Your task to perform on an android device: Look up the best rated coffee table on Ikea Image 0: 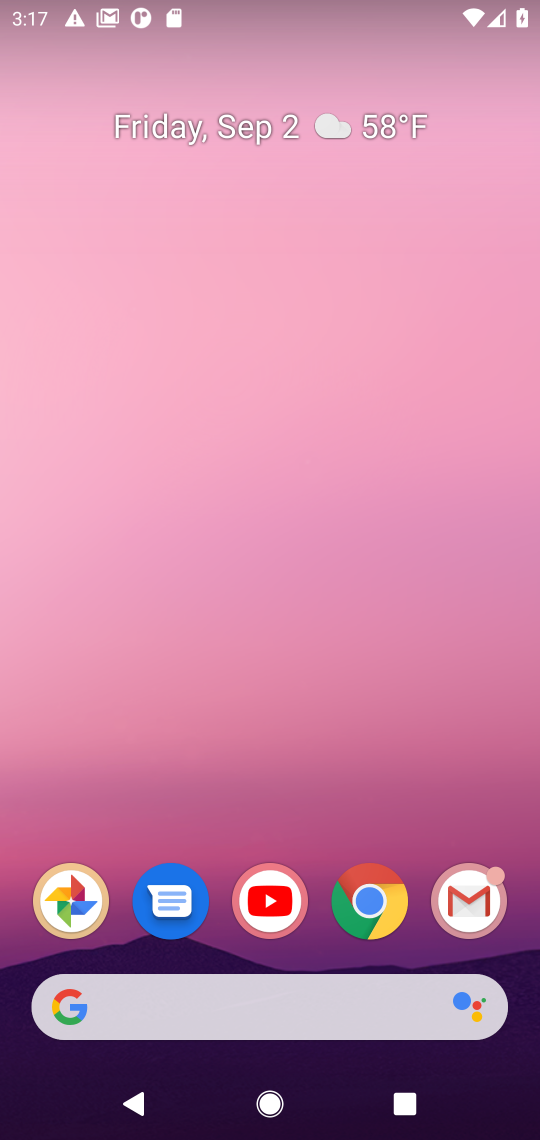
Step 0: click (536, 745)
Your task to perform on an android device: Look up the best rated coffee table on Ikea Image 1: 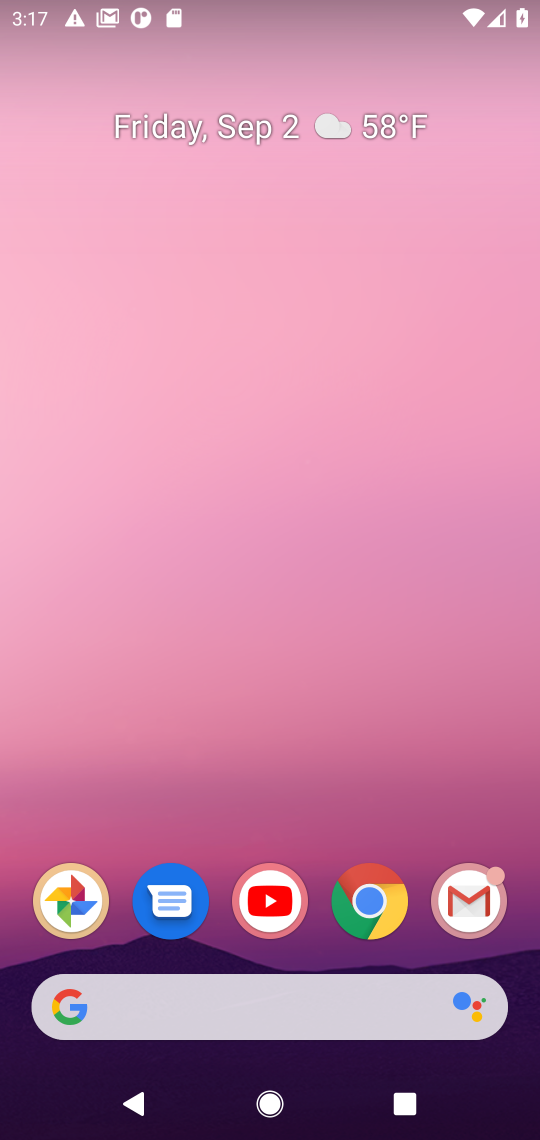
Step 1: drag from (263, 527) to (300, 89)
Your task to perform on an android device: Look up the best rated coffee table on Ikea Image 2: 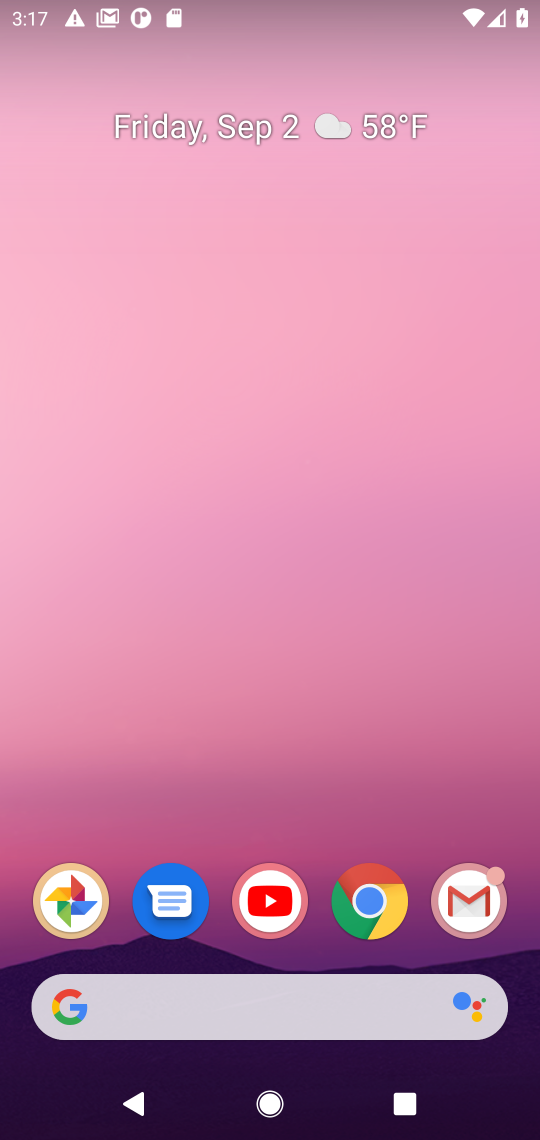
Step 2: drag from (275, 756) to (398, 0)
Your task to perform on an android device: Look up the best rated coffee table on Ikea Image 3: 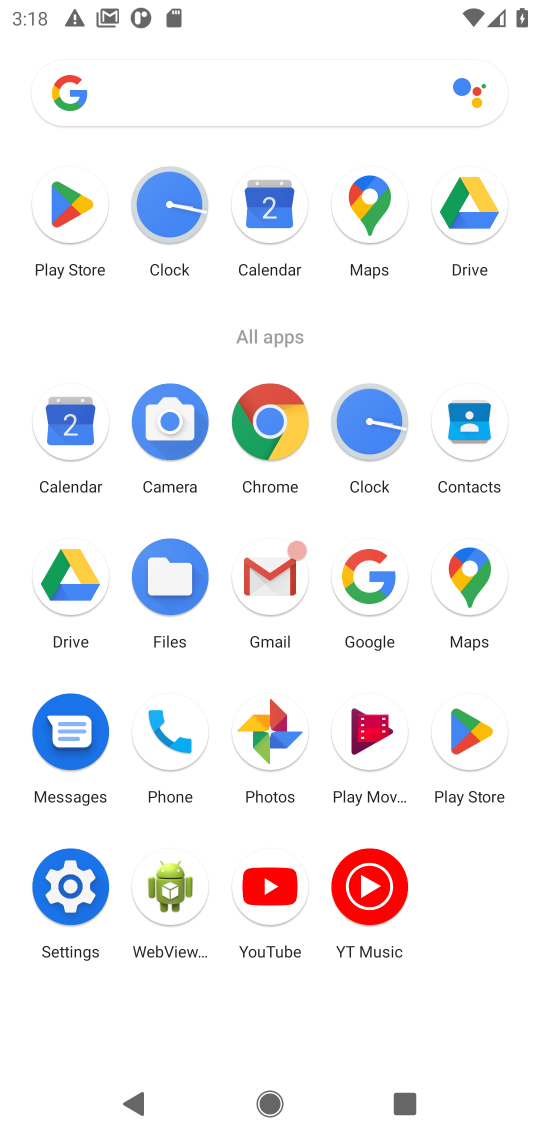
Step 3: click (275, 423)
Your task to perform on an android device: Look up the best rated coffee table on Ikea Image 4: 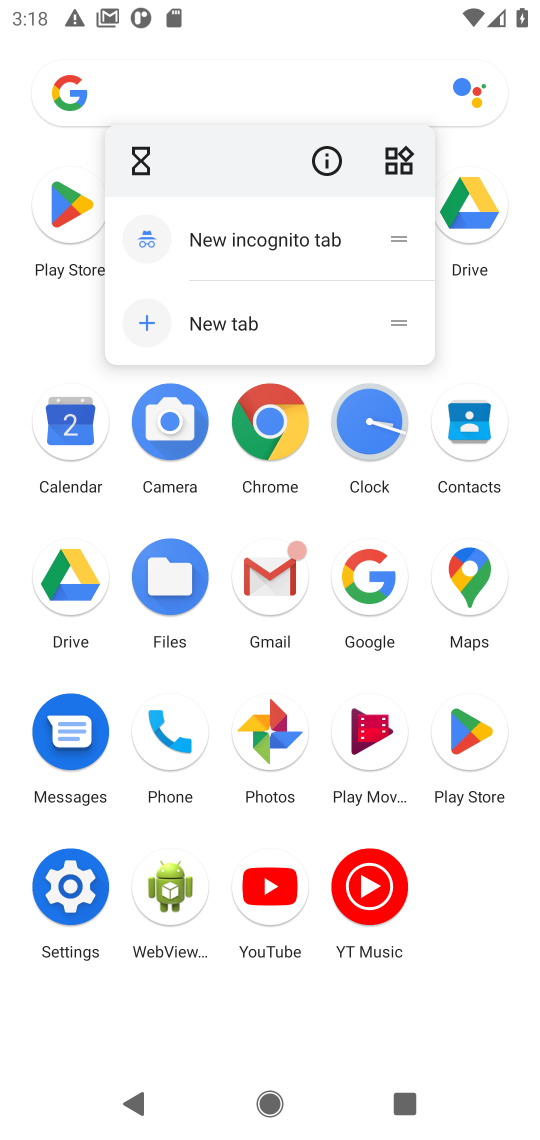
Step 4: click (276, 435)
Your task to perform on an android device: Look up the best rated coffee table on Ikea Image 5: 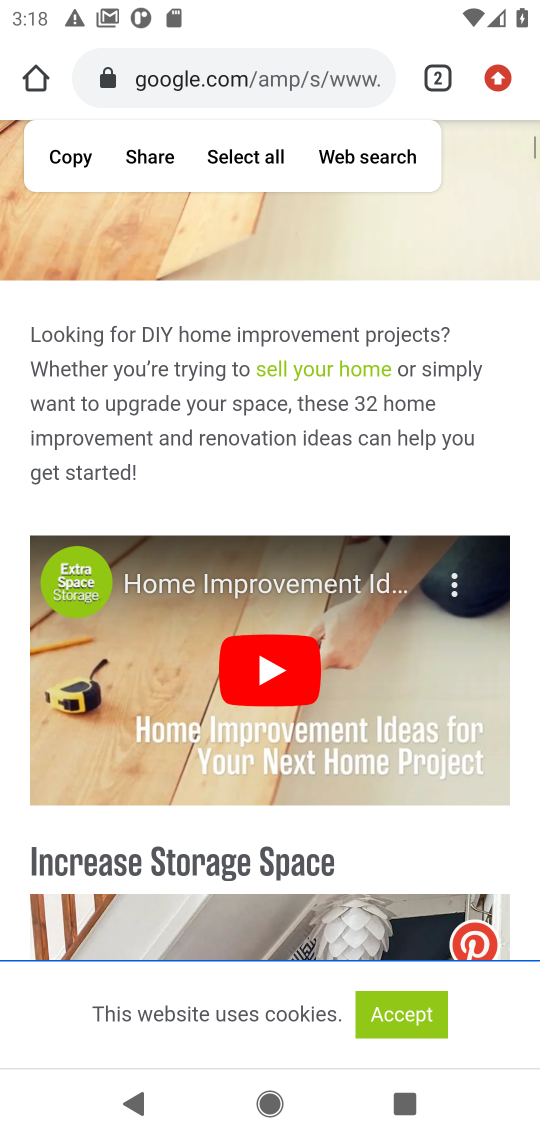
Step 5: click (318, 85)
Your task to perform on an android device: Look up the best rated coffee table on Ikea Image 6: 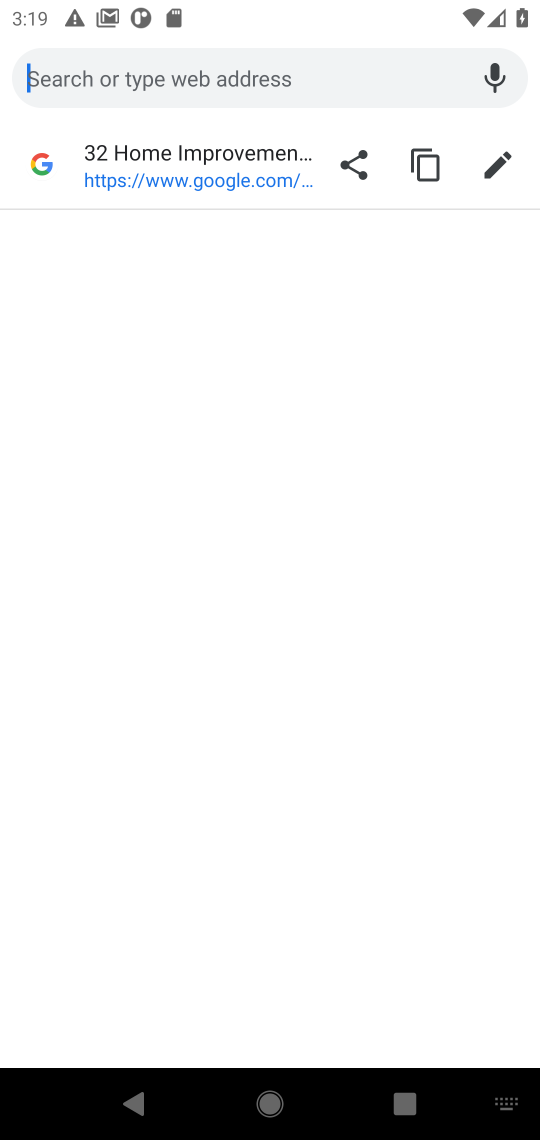
Step 6: type "best rated coffee table on Ikea"
Your task to perform on an android device: Look up the best rated coffee table on Ikea Image 7: 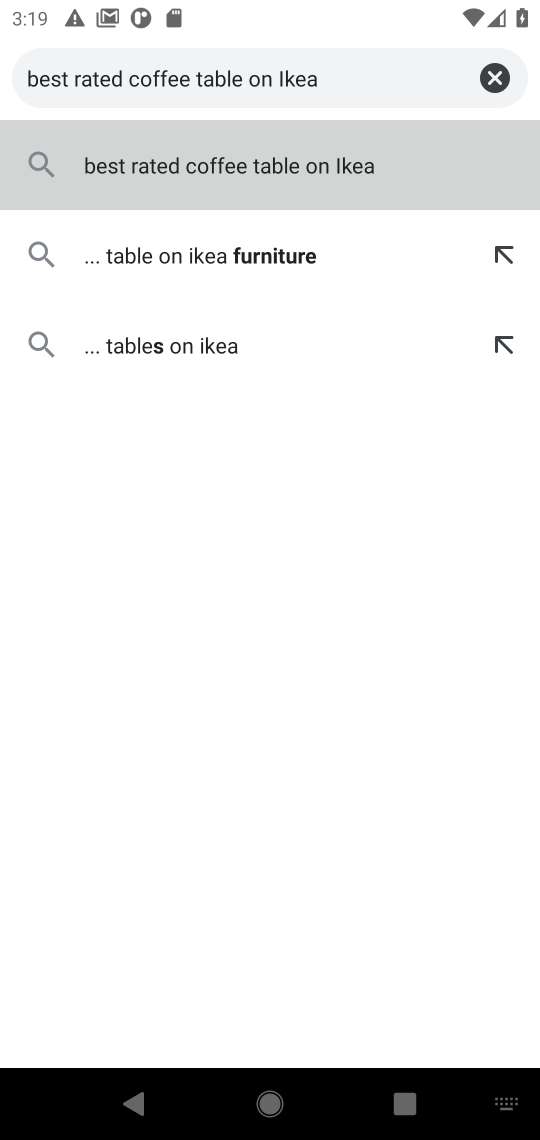
Step 7: press enter
Your task to perform on an android device: Look up the best rated coffee table on Ikea Image 8: 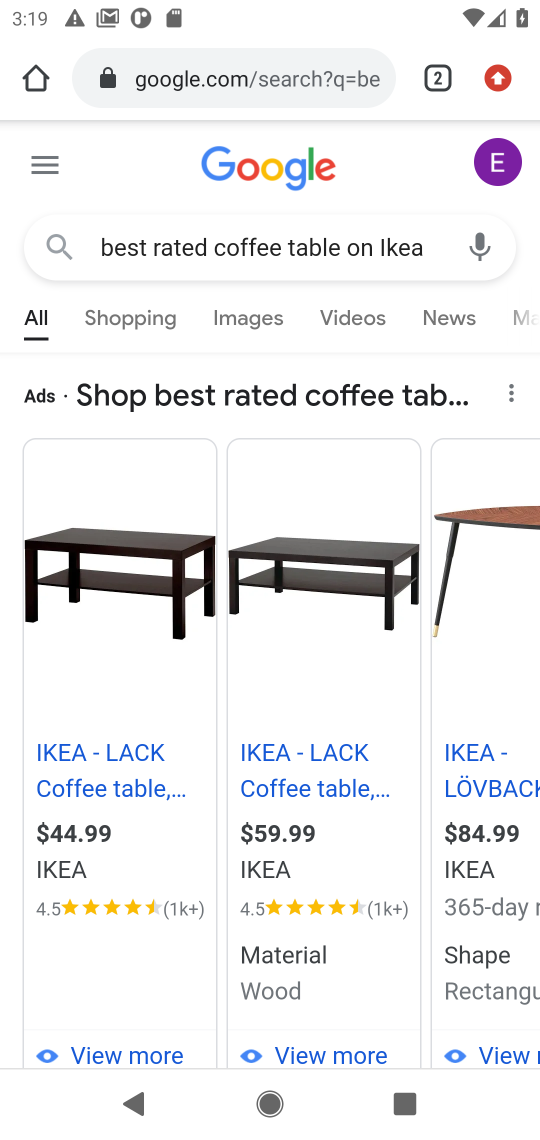
Step 8: drag from (315, 741) to (344, 147)
Your task to perform on an android device: Look up the best rated coffee table on Ikea Image 9: 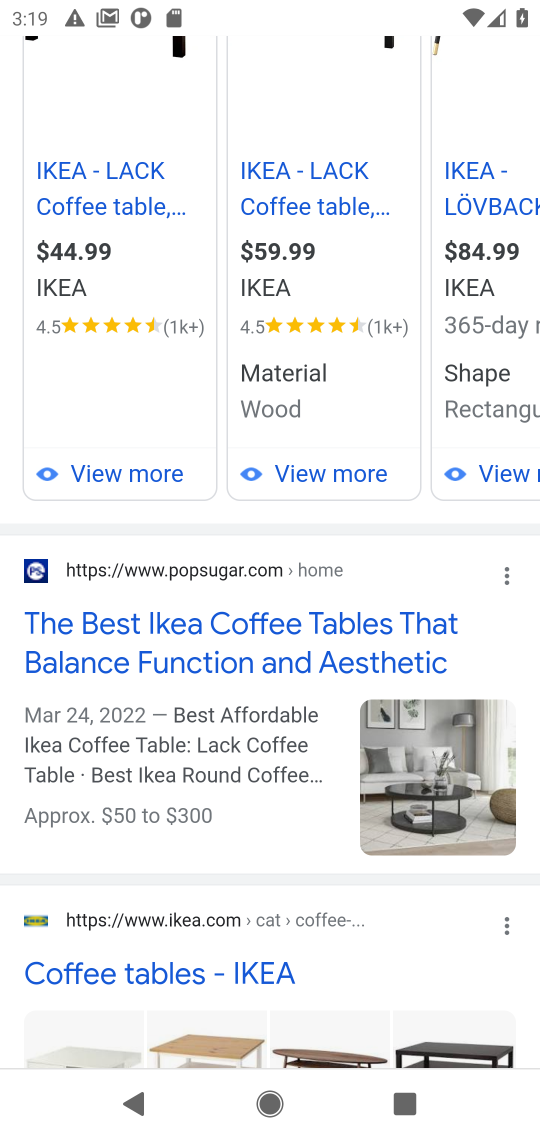
Step 9: drag from (274, 917) to (284, 748)
Your task to perform on an android device: Look up the best rated coffee table on Ikea Image 10: 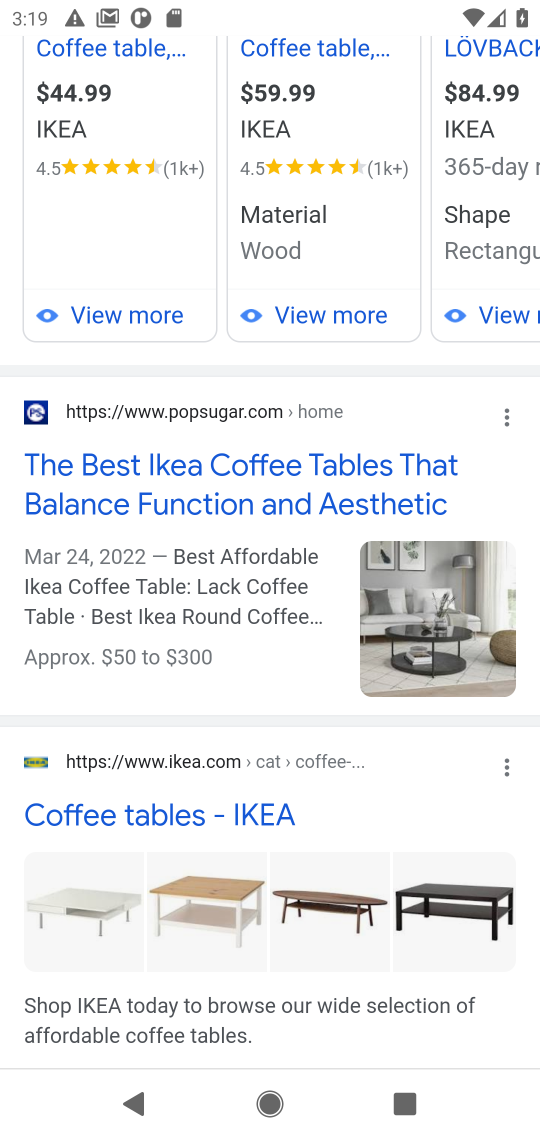
Step 10: click (288, 490)
Your task to perform on an android device: Look up the best rated coffee table on Ikea Image 11: 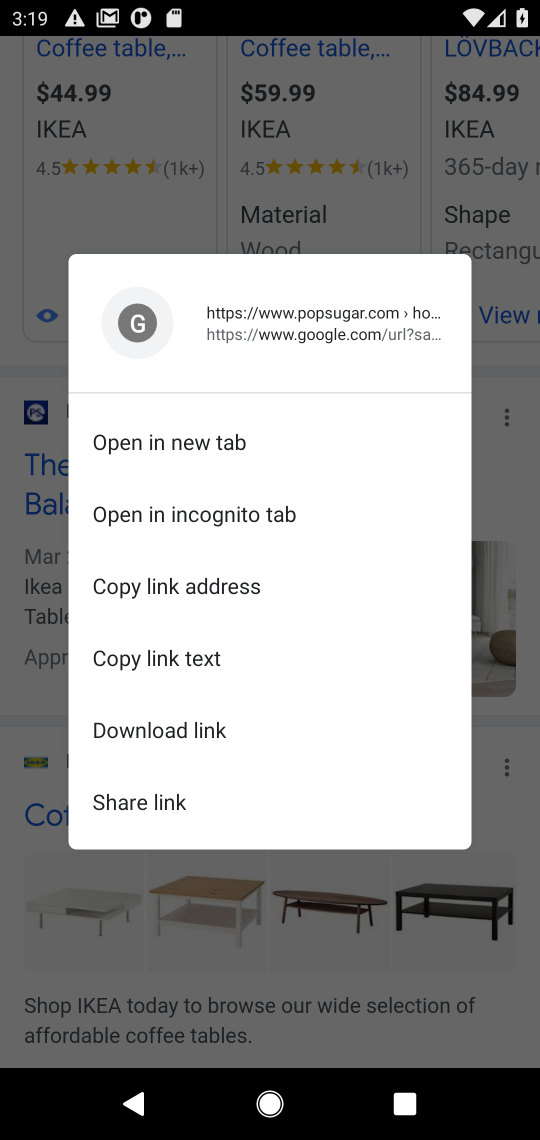
Step 11: click (250, 956)
Your task to perform on an android device: Look up the best rated coffee table on Ikea Image 12: 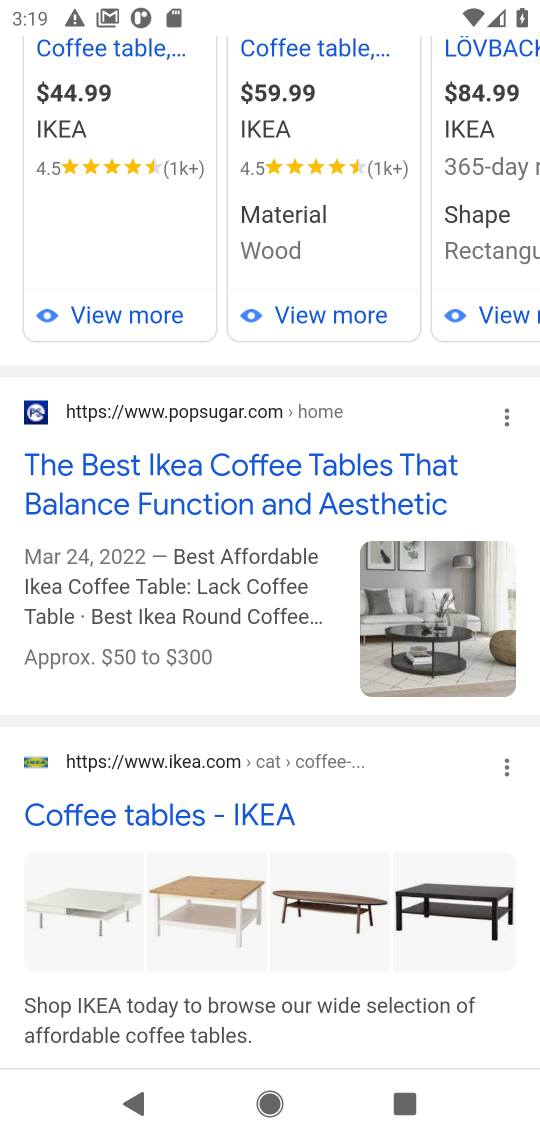
Step 12: click (192, 494)
Your task to perform on an android device: Look up the best rated coffee table on Ikea Image 13: 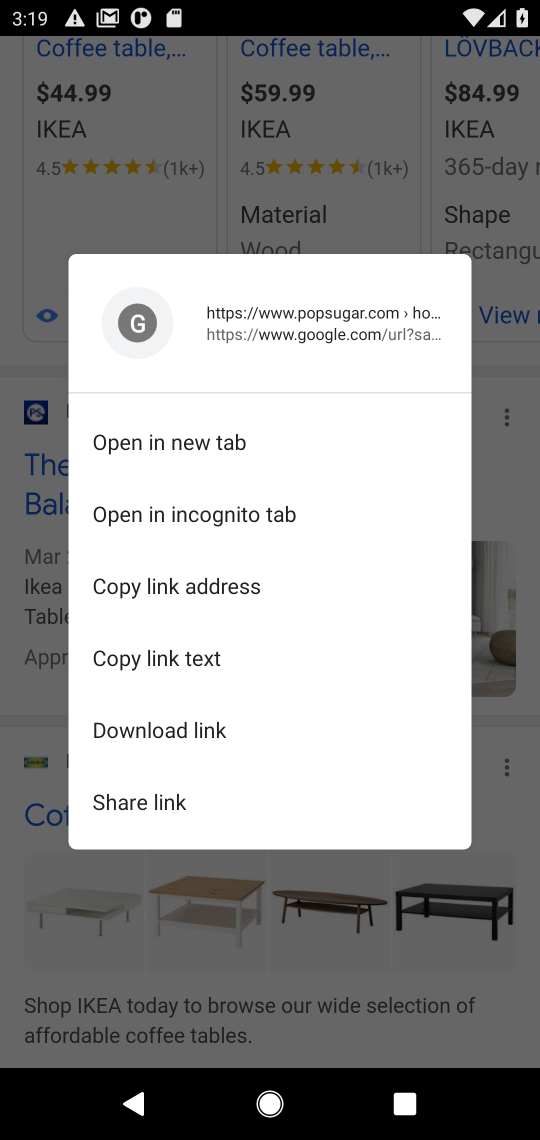
Step 13: click (338, 939)
Your task to perform on an android device: Look up the best rated coffee table on Ikea Image 14: 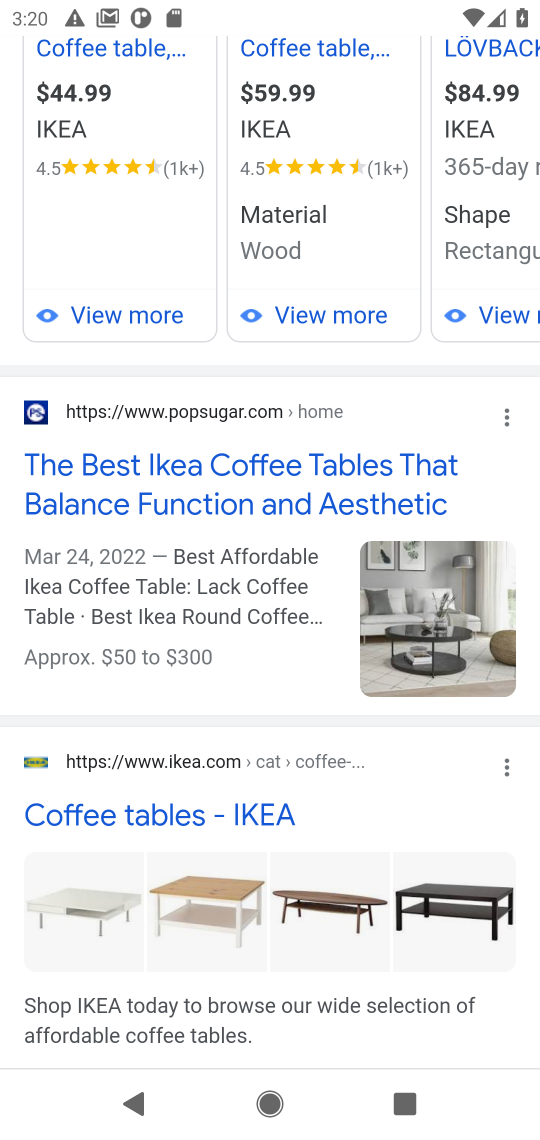
Step 14: click (265, 820)
Your task to perform on an android device: Look up the best rated coffee table on Ikea Image 15: 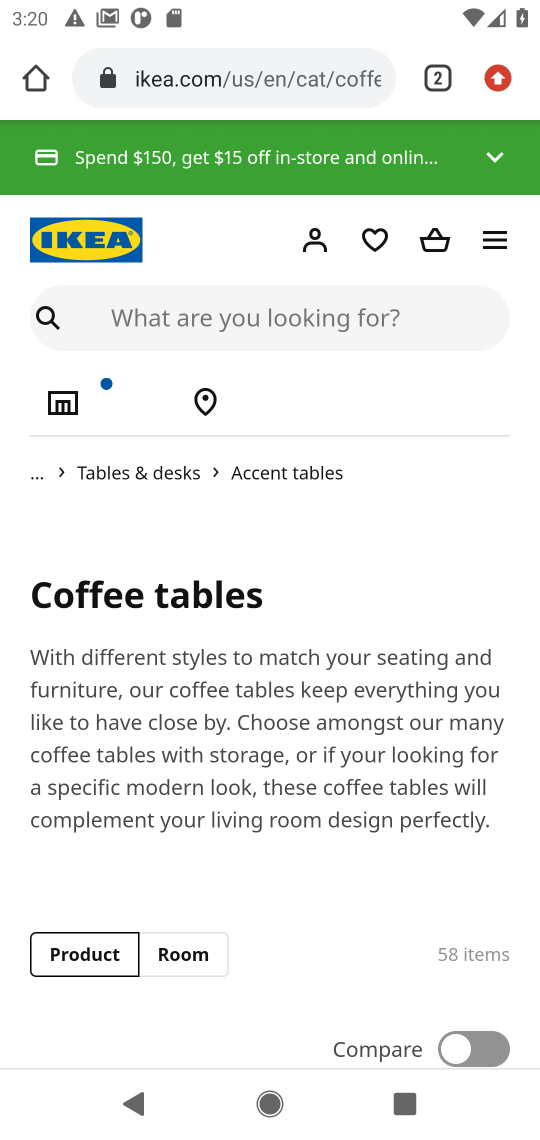
Step 15: task complete